Your task to perform on an android device: Go to Google Image 0: 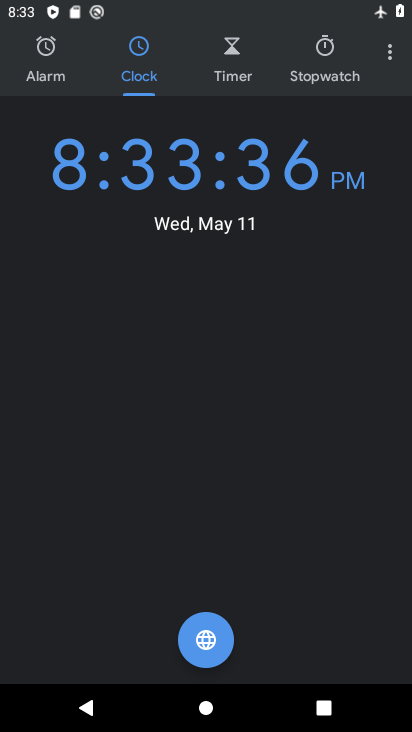
Step 0: press home button
Your task to perform on an android device: Go to Google Image 1: 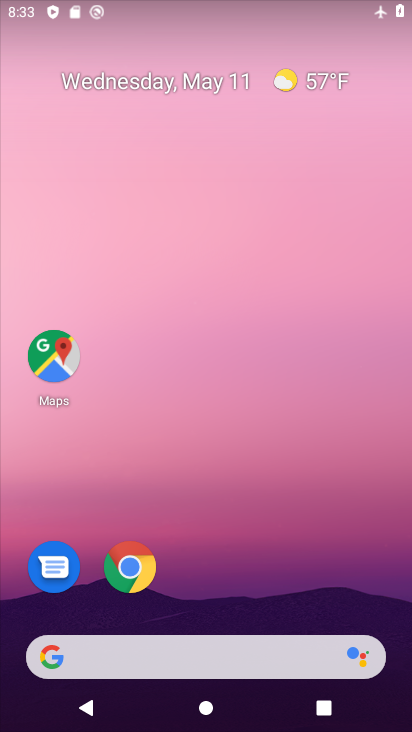
Step 1: drag from (251, 547) to (215, 64)
Your task to perform on an android device: Go to Google Image 2: 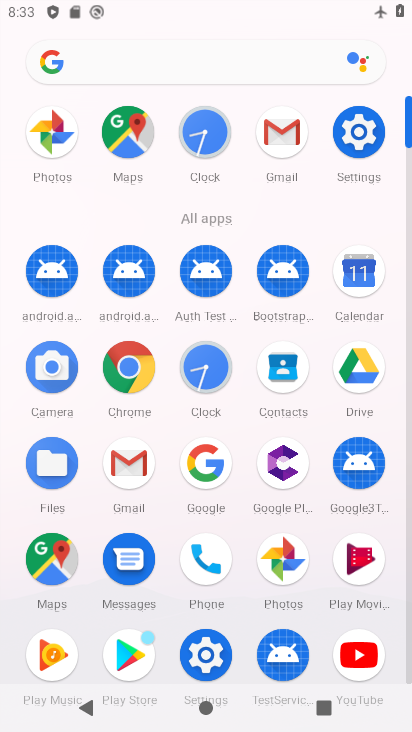
Step 2: click (197, 469)
Your task to perform on an android device: Go to Google Image 3: 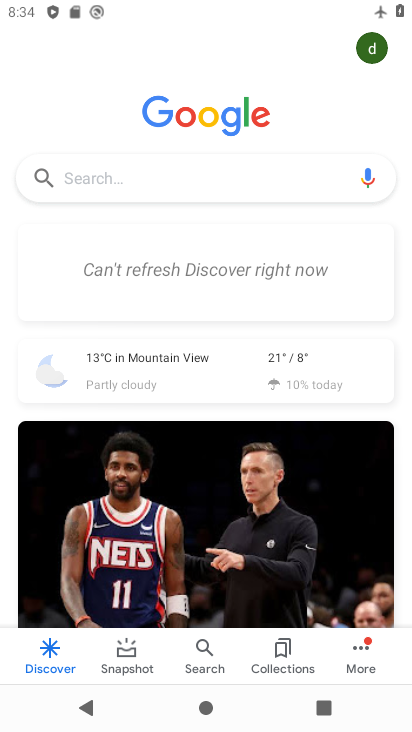
Step 3: task complete